Your task to perform on an android device: open a new tab in the chrome app Image 0: 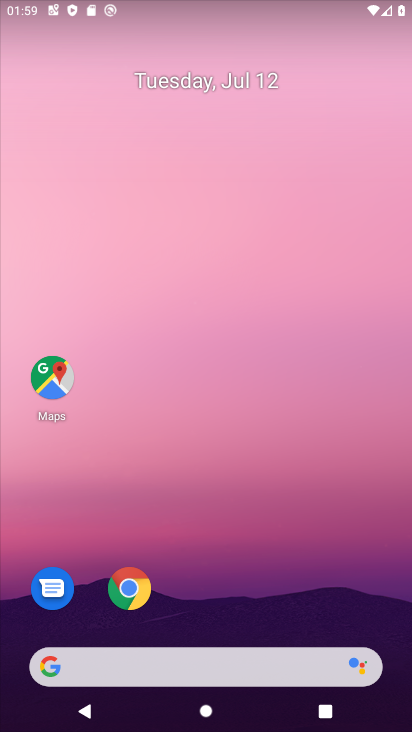
Step 0: click (139, 601)
Your task to perform on an android device: open a new tab in the chrome app Image 1: 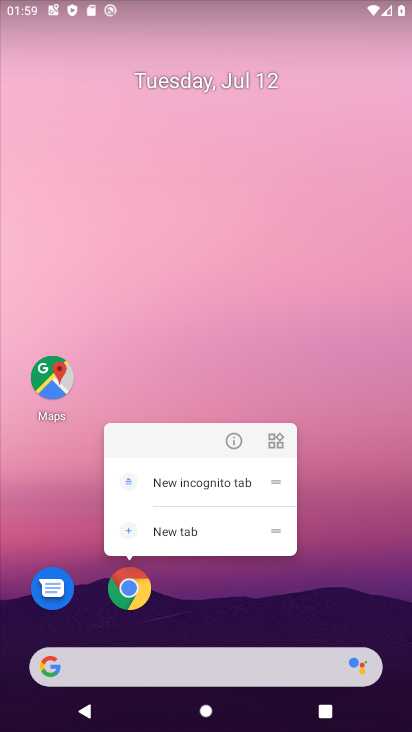
Step 1: click (167, 530)
Your task to perform on an android device: open a new tab in the chrome app Image 2: 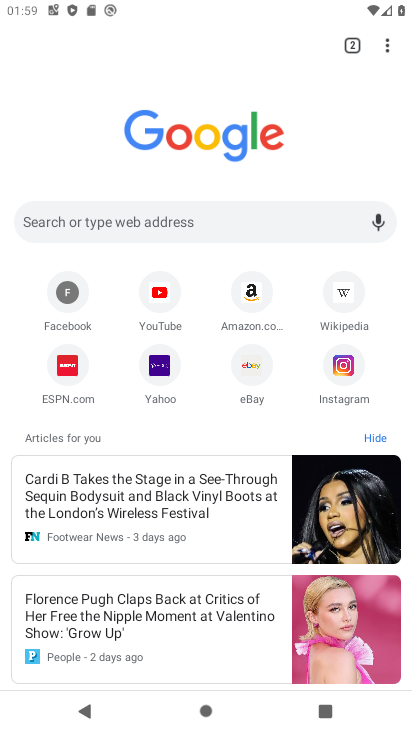
Step 2: click (361, 43)
Your task to perform on an android device: open a new tab in the chrome app Image 3: 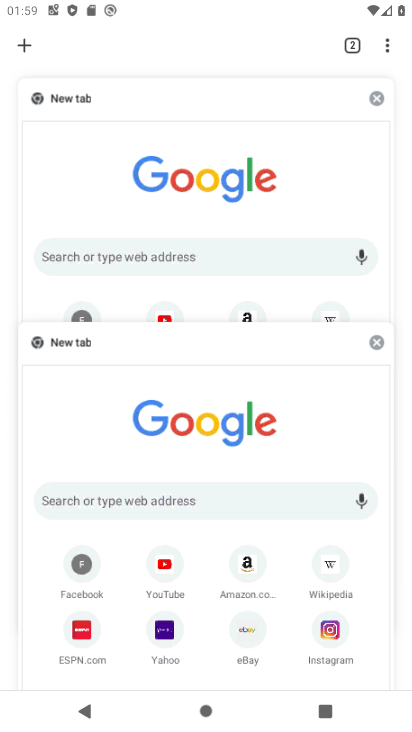
Step 3: click (19, 48)
Your task to perform on an android device: open a new tab in the chrome app Image 4: 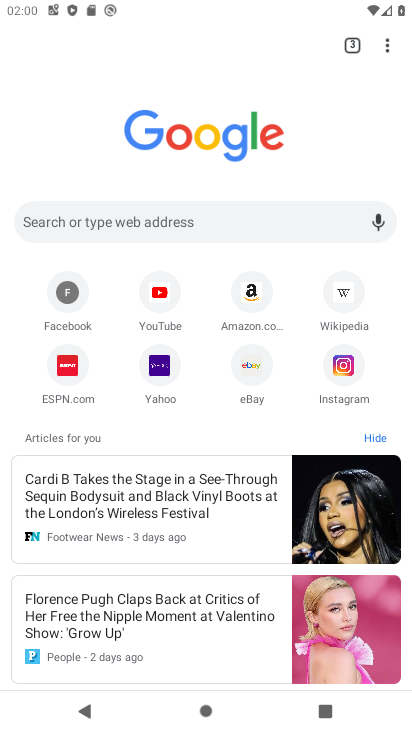
Step 4: task complete